Your task to perform on an android device: add a contact Image 0: 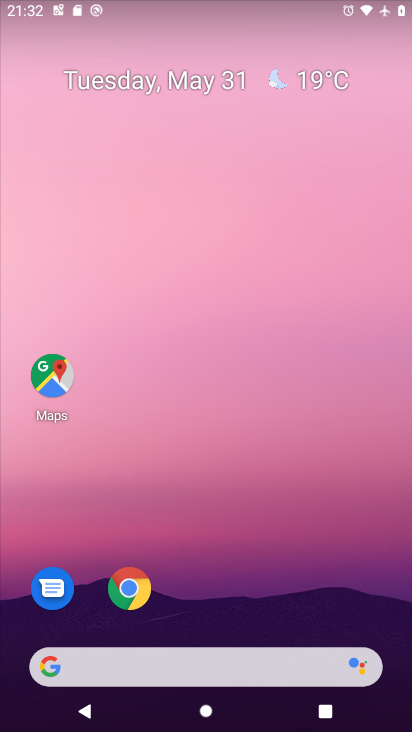
Step 0: press home button
Your task to perform on an android device: add a contact Image 1: 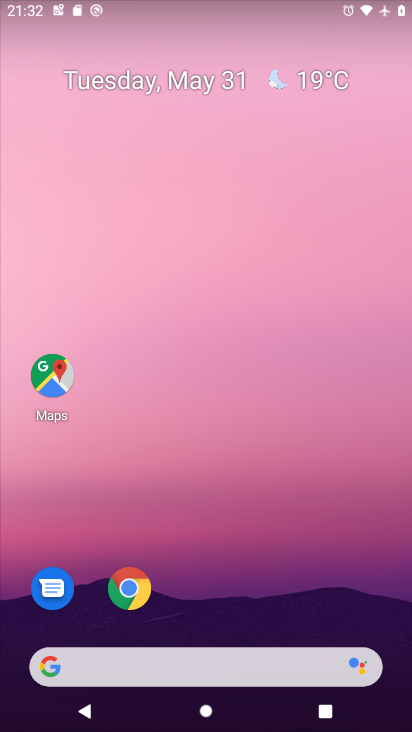
Step 1: drag from (150, 663) to (322, 124)
Your task to perform on an android device: add a contact Image 2: 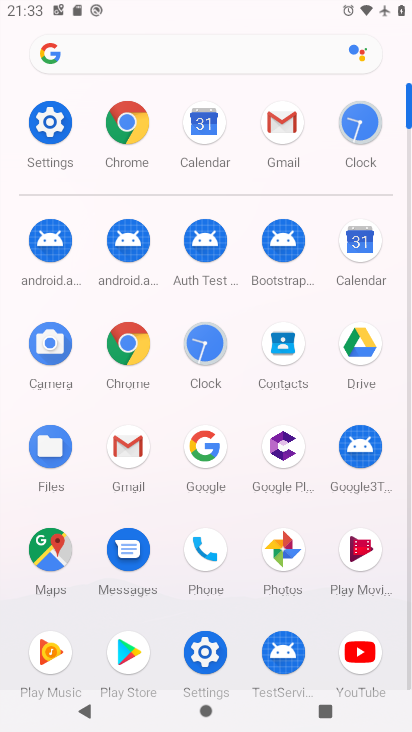
Step 2: click (277, 354)
Your task to perform on an android device: add a contact Image 3: 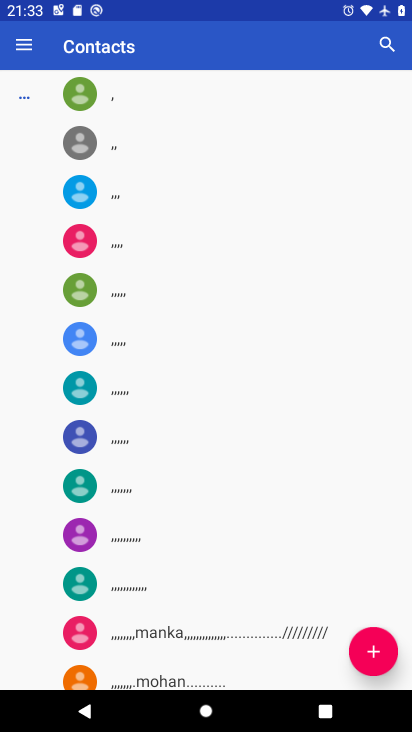
Step 3: click (385, 650)
Your task to perform on an android device: add a contact Image 4: 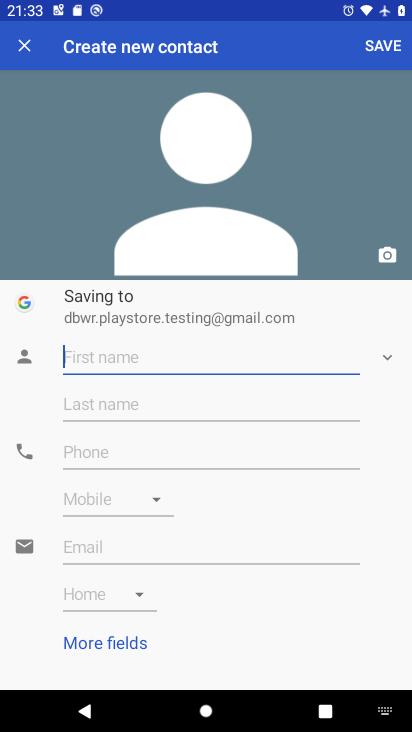
Step 4: type "bytrfghh"
Your task to perform on an android device: add a contact Image 5: 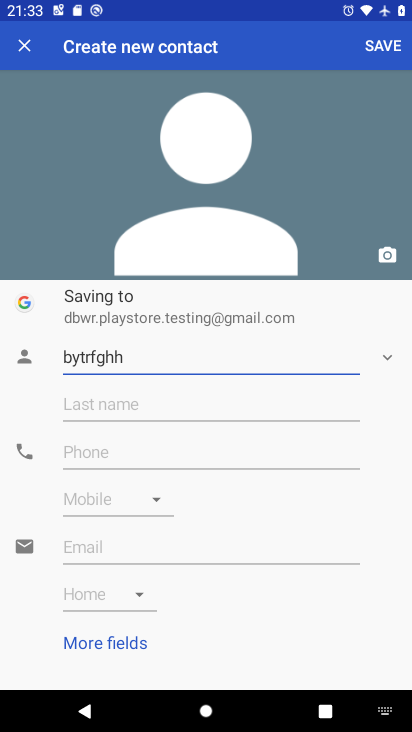
Step 5: click (122, 449)
Your task to perform on an android device: add a contact Image 6: 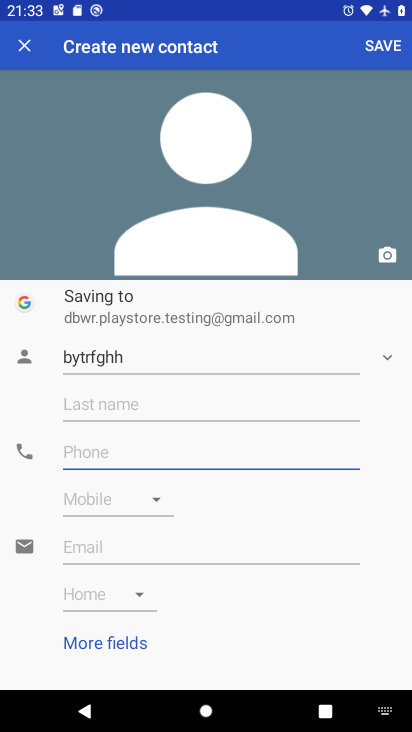
Step 6: type "7658877"
Your task to perform on an android device: add a contact Image 7: 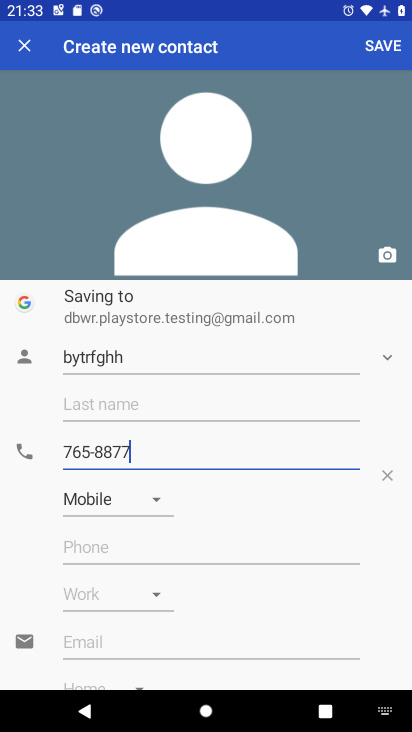
Step 7: click (393, 48)
Your task to perform on an android device: add a contact Image 8: 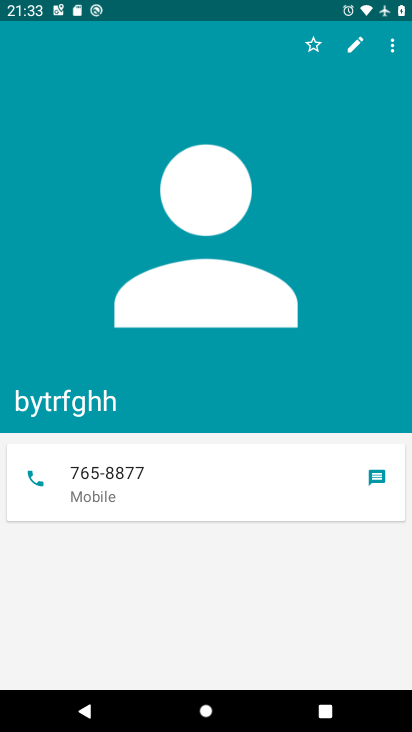
Step 8: task complete